Your task to perform on an android device: open app "Google Home" Image 0: 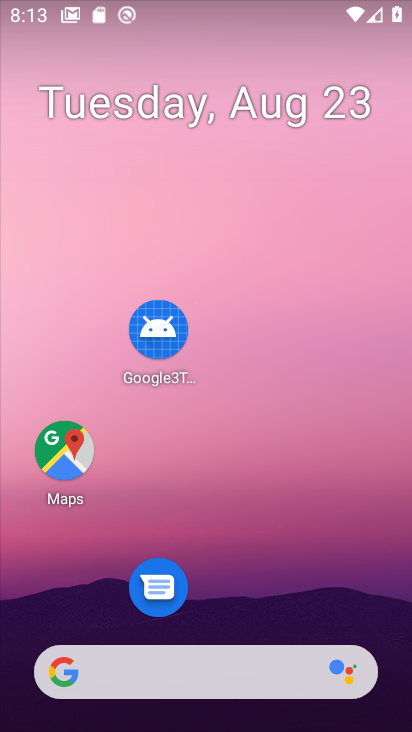
Step 0: drag from (256, 580) to (256, 63)
Your task to perform on an android device: open app "Google Home" Image 1: 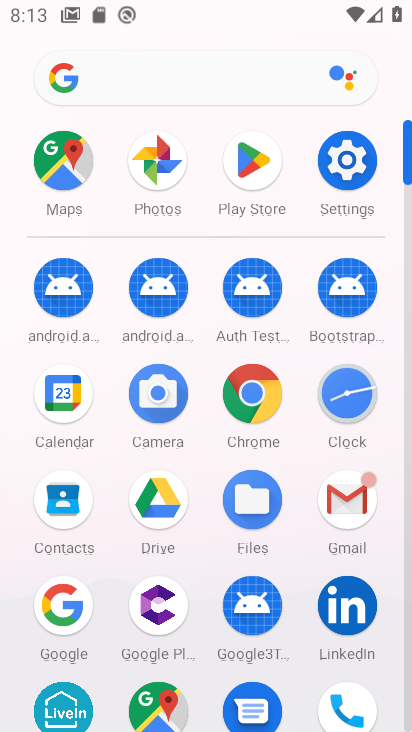
Step 1: click (252, 171)
Your task to perform on an android device: open app "Google Home" Image 2: 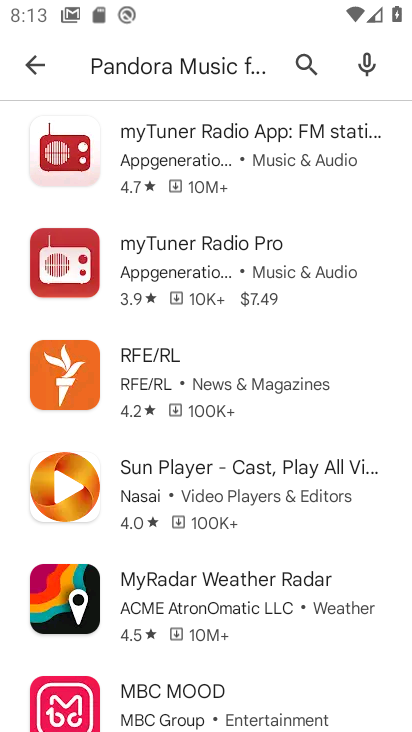
Step 2: click (300, 84)
Your task to perform on an android device: open app "Google Home" Image 3: 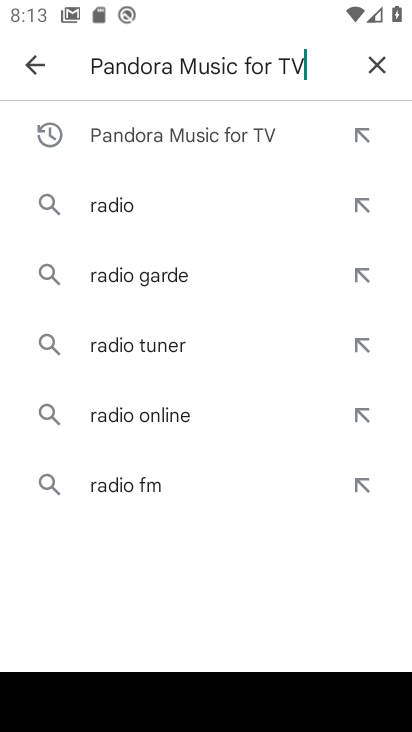
Step 3: click (375, 71)
Your task to perform on an android device: open app "Google Home" Image 4: 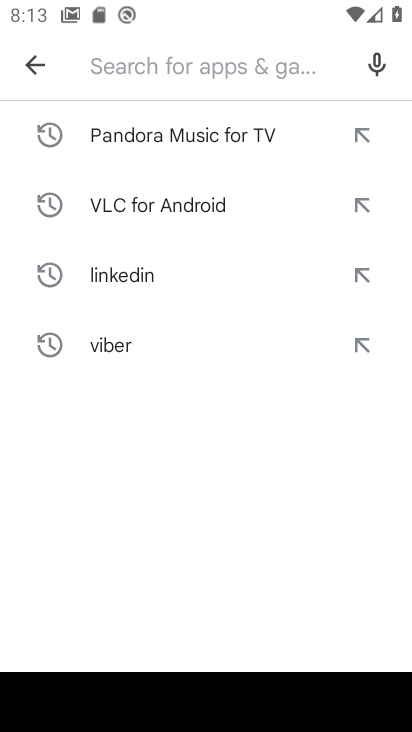
Step 4: type "google home"
Your task to perform on an android device: open app "Google Home" Image 5: 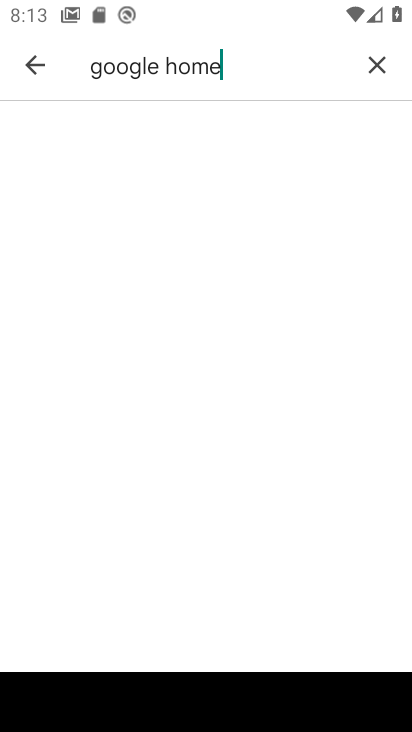
Step 5: task complete